Your task to perform on an android device: Search for "beats solo 3" on target, select the first entry, and add it to the cart. Image 0: 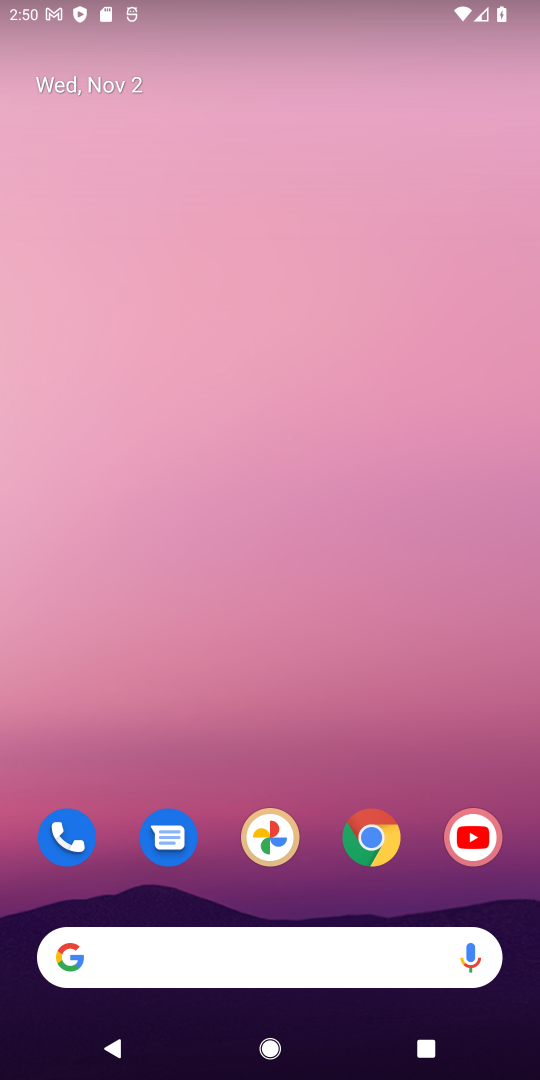
Step 0: press home button
Your task to perform on an android device: Search for "beats solo 3" on target, select the first entry, and add it to the cart. Image 1: 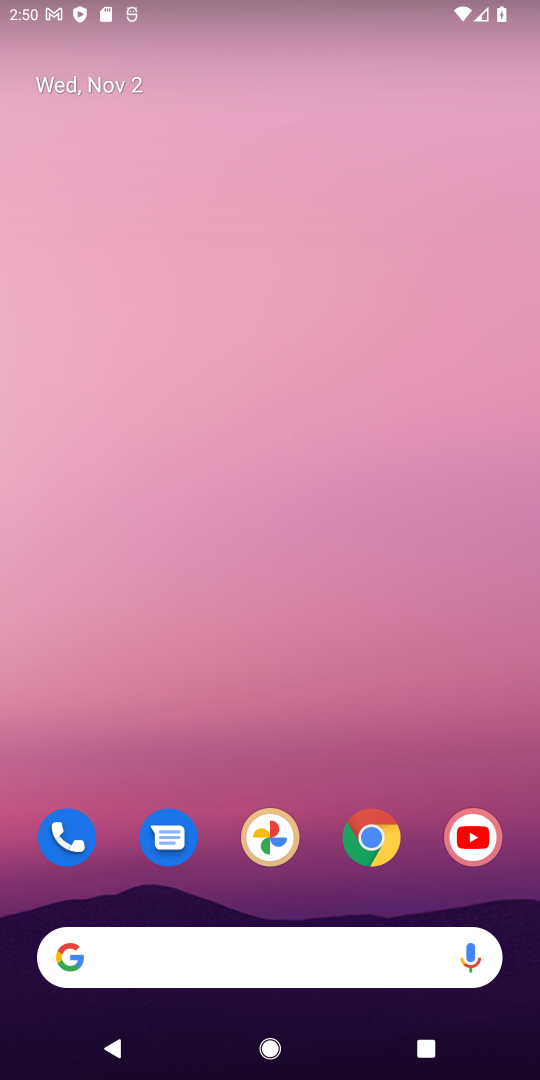
Step 1: drag from (308, 791) to (319, 81)
Your task to perform on an android device: Search for "beats solo 3" on target, select the first entry, and add it to the cart. Image 2: 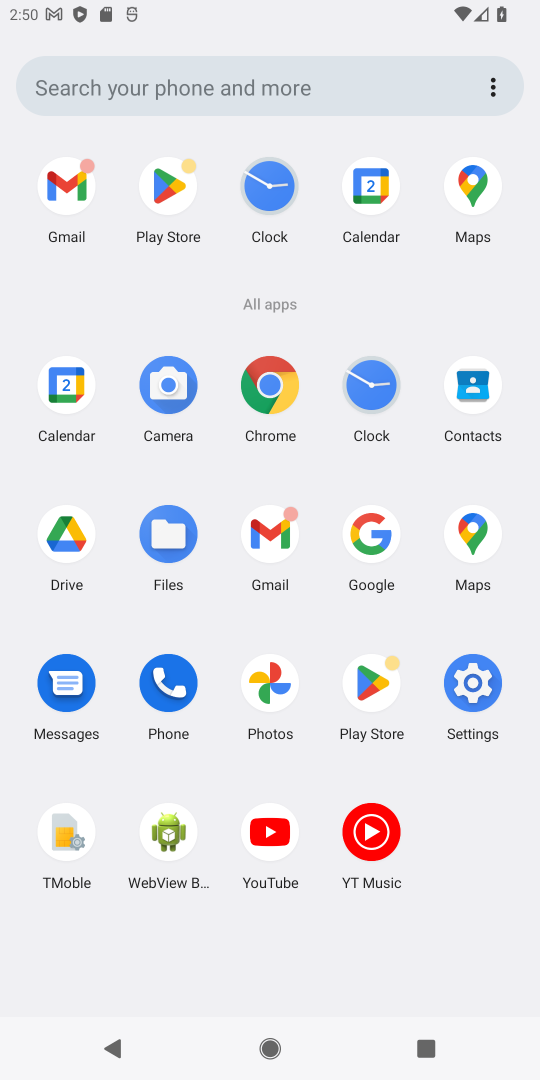
Step 2: click (267, 382)
Your task to perform on an android device: Search for "beats solo 3" on target, select the first entry, and add it to the cart. Image 3: 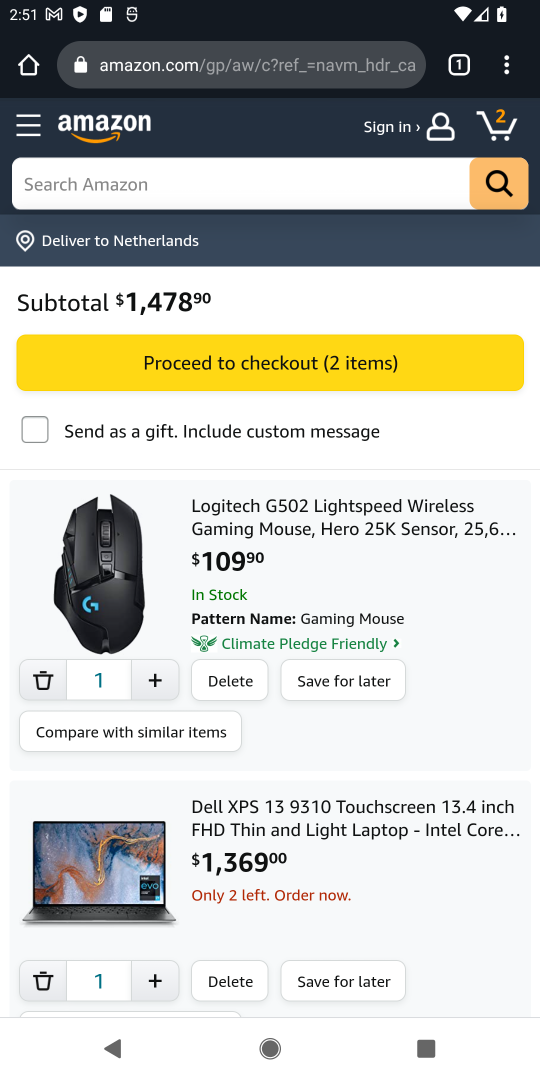
Step 3: click (203, 74)
Your task to perform on an android device: Search for "beats solo 3" on target, select the first entry, and add it to the cart. Image 4: 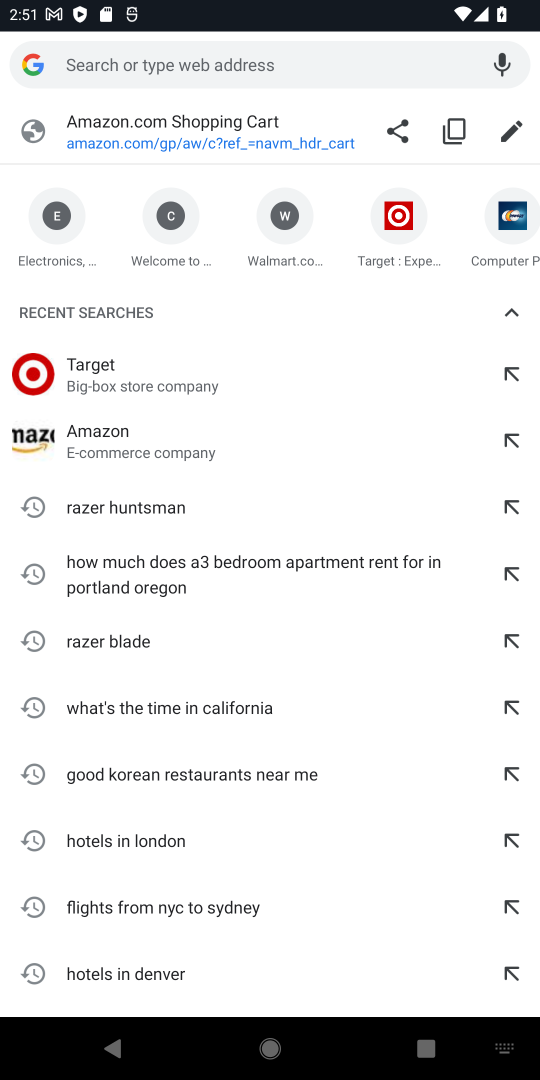
Step 4: type "target"
Your task to perform on an android device: Search for "beats solo 3" on target, select the first entry, and add it to the cart. Image 5: 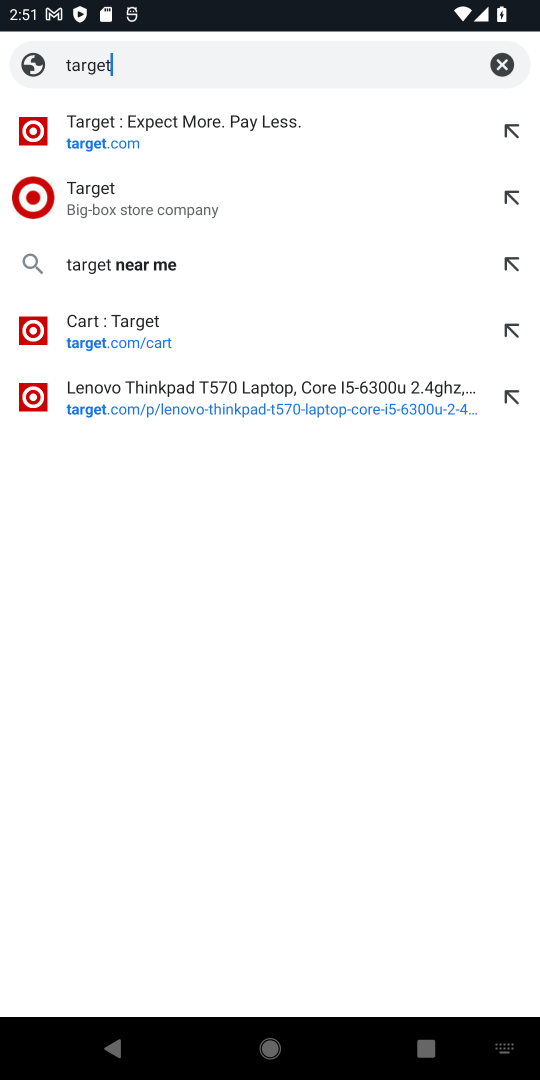
Step 5: click (151, 139)
Your task to perform on an android device: Search for "beats solo 3" on target, select the first entry, and add it to the cart. Image 6: 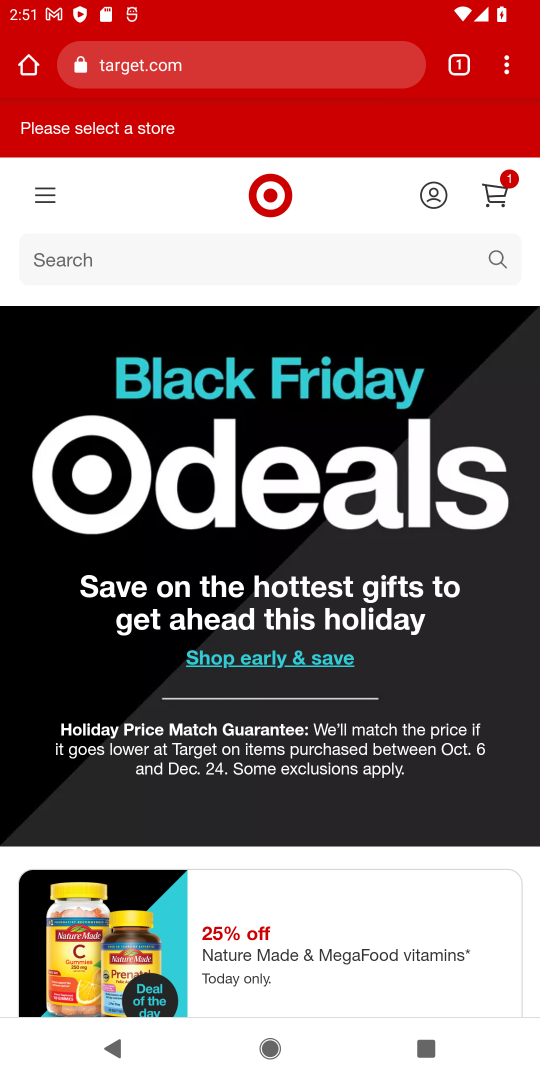
Step 6: click (103, 256)
Your task to perform on an android device: Search for "beats solo 3" on target, select the first entry, and add it to the cart. Image 7: 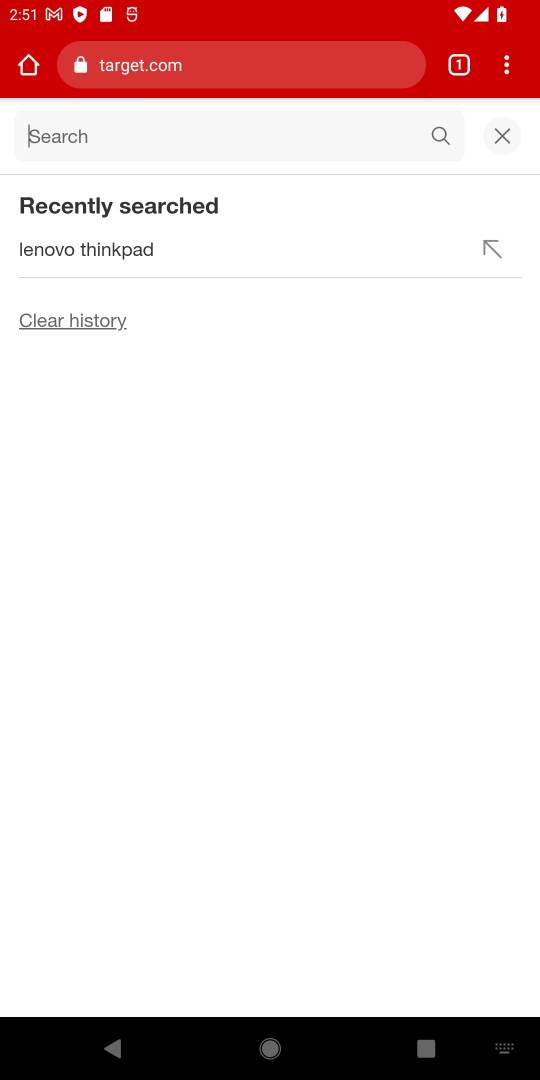
Step 7: type "beats solo 3"
Your task to perform on an android device: Search for "beats solo 3" on target, select the first entry, and add it to the cart. Image 8: 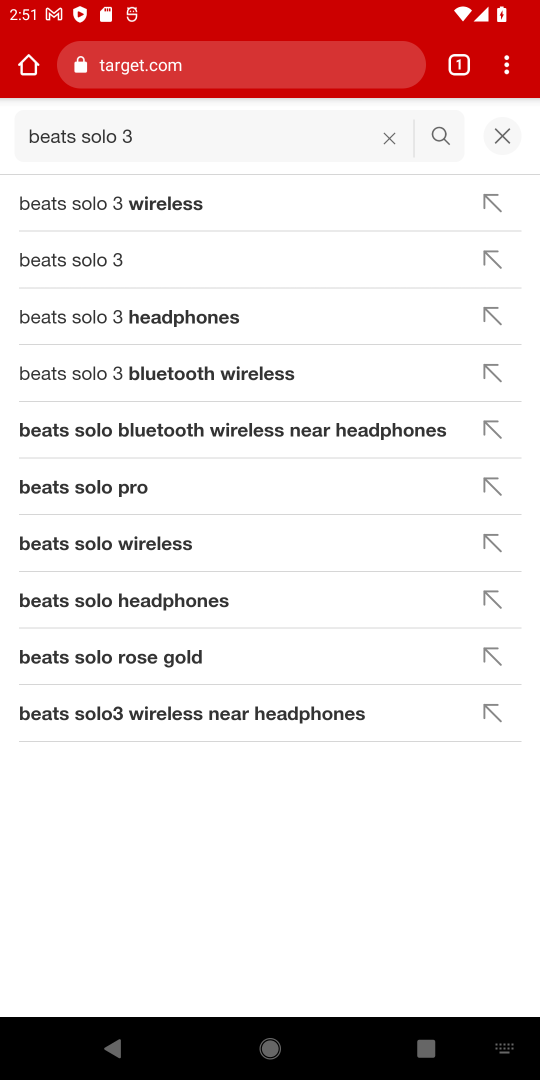
Step 8: click (115, 259)
Your task to perform on an android device: Search for "beats solo 3" on target, select the first entry, and add it to the cart. Image 9: 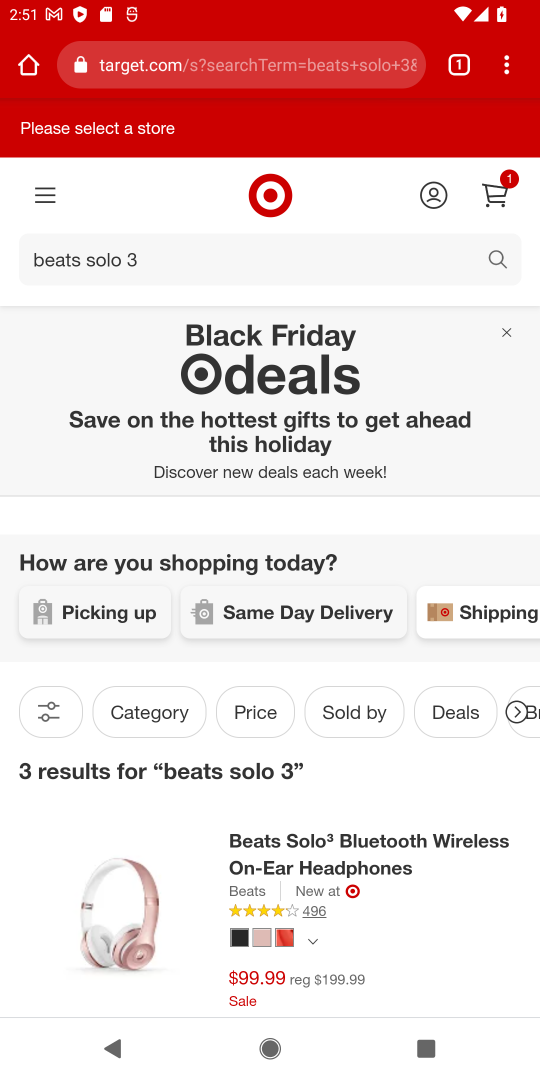
Step 9: click (259, 858)
Your task to perform on an android device: Search for "beats solo 3" on target, select the first entry, and add it to the cart. Image 10: 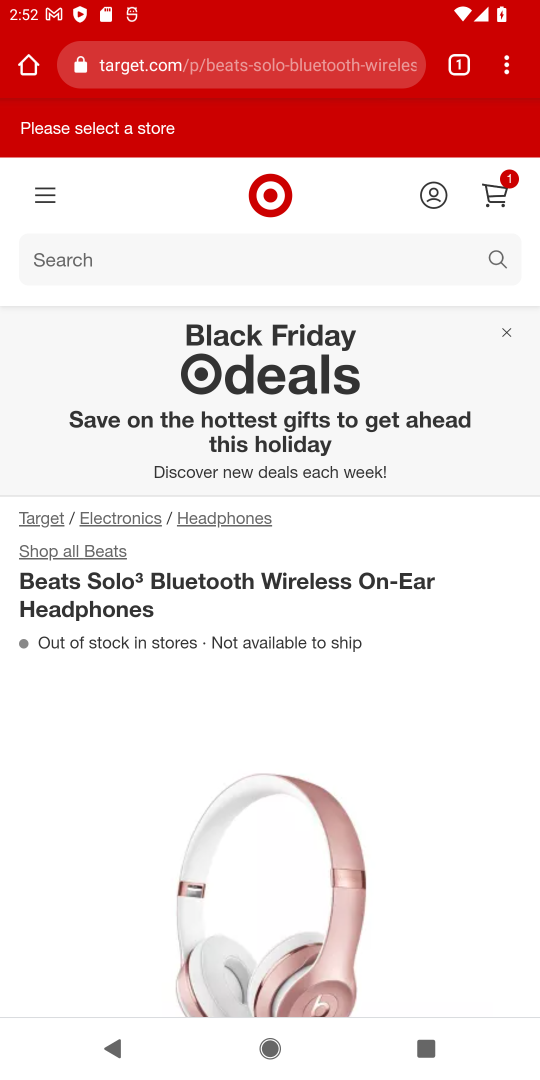
Step 10: drag from (418, 898) to (422, 261)
Your task to perform on an android device: Search for "beats solo 3" on target, select the first entry, and add it to the cart. Image 11: 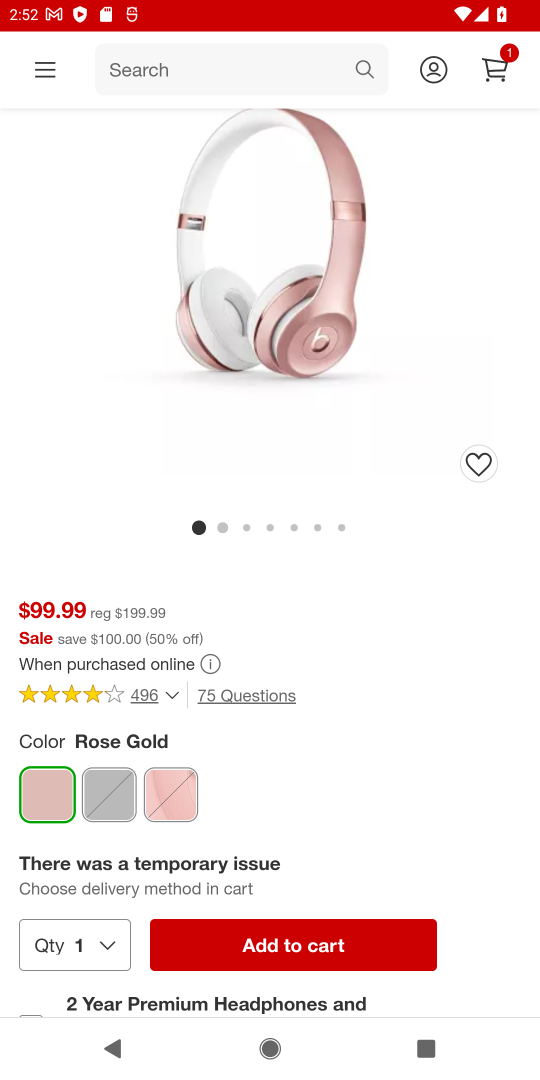
Step 11: click (292, 945)
Your task to perform on an android device: Search for "beats solo 3" on target, select the first entry, and add it to the cart. Image 12: 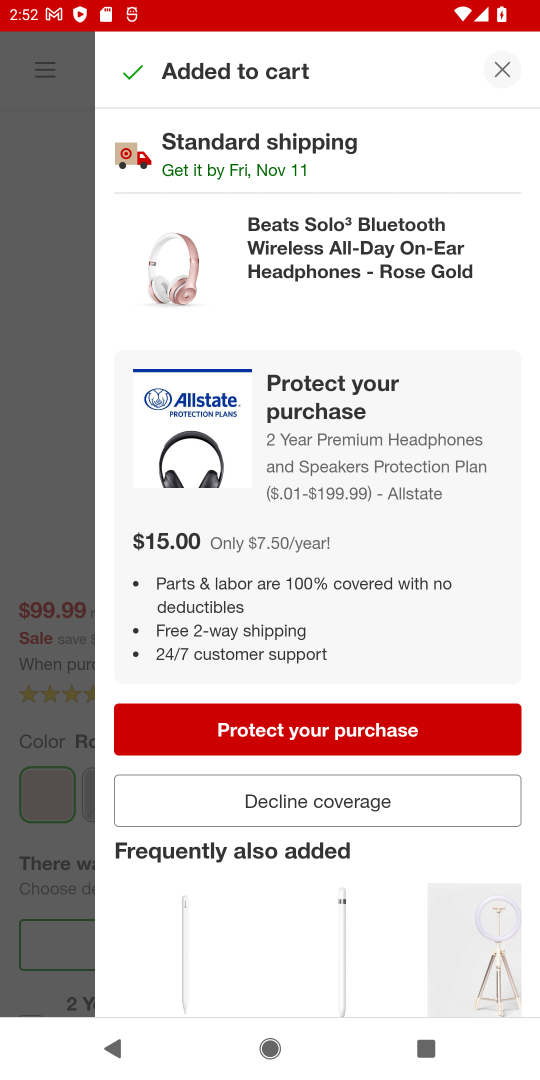
Step 12: click (507, 63)
Your task to perform on an android device: Search for "beats solo 3" on target, select the first entry, and add it to the cart. Image 13: 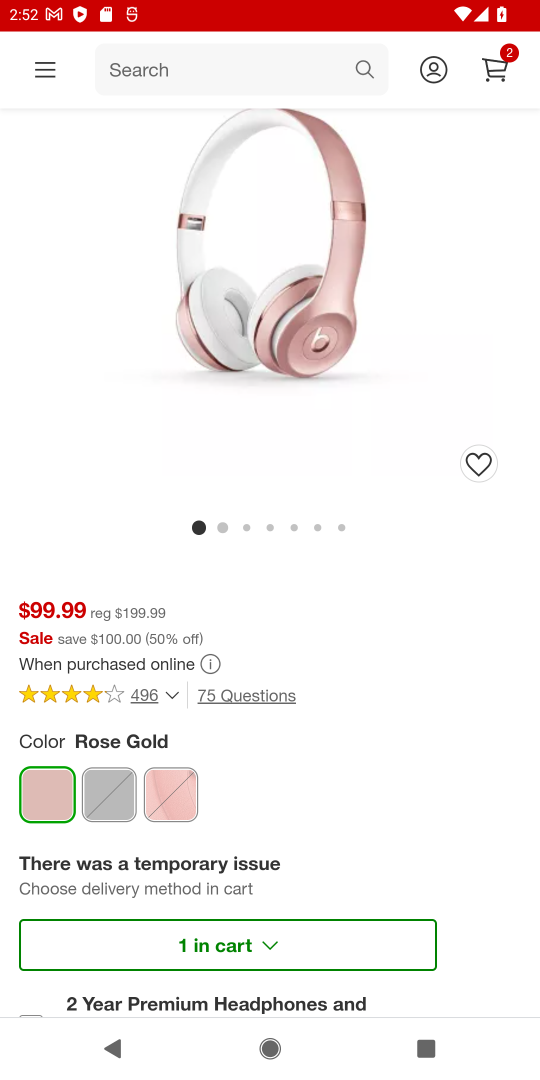
Step 13: click (502, 60)
Your task to perform on an android device: Search for "beats solo 3" on target, select the first entry, and add it to the cart. Image 14: 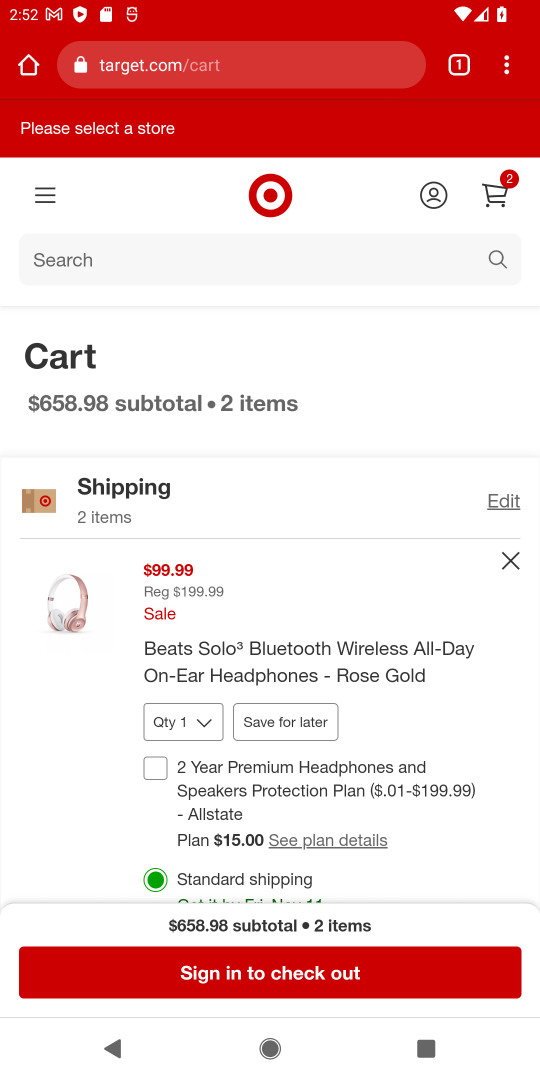
Step 14: task complete